Your task to perform on an android device: open app "Facebook" (install if not already installed) Image 0: 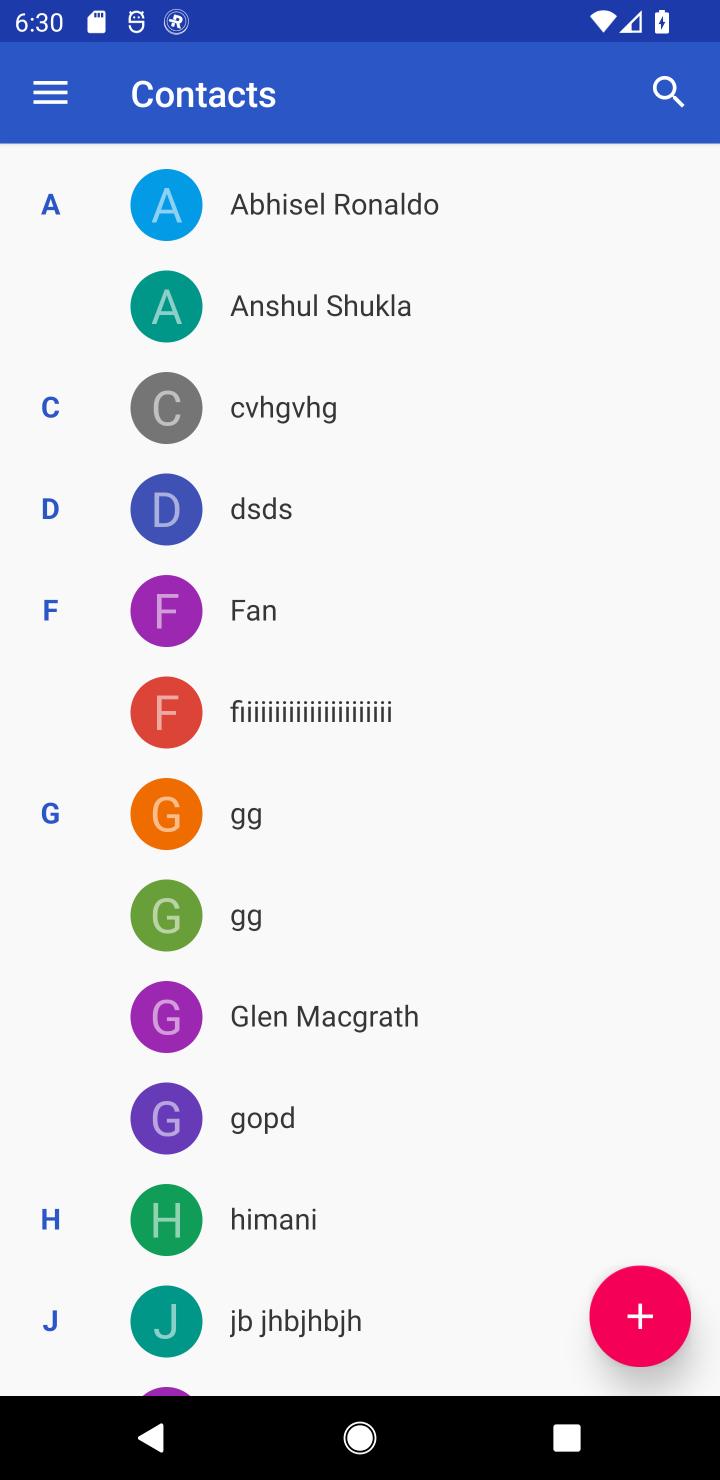
Step 0: press home button
Your task to perform on an android device: open app "Facebook" (install if not already installed) Image 1: 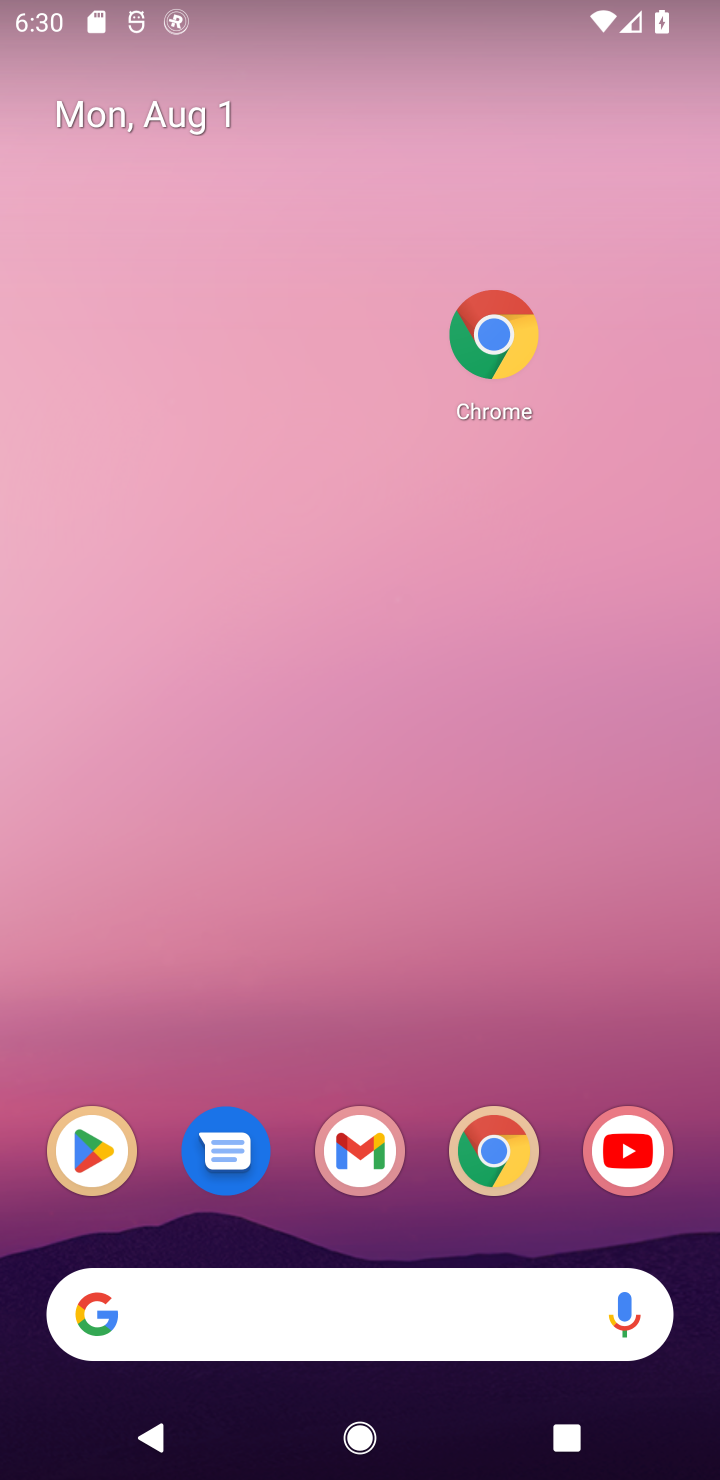
Step 1: click (108, 1155)
Your task to perform on an android device: open app "Facebook" (install if not already installed) Image 2: 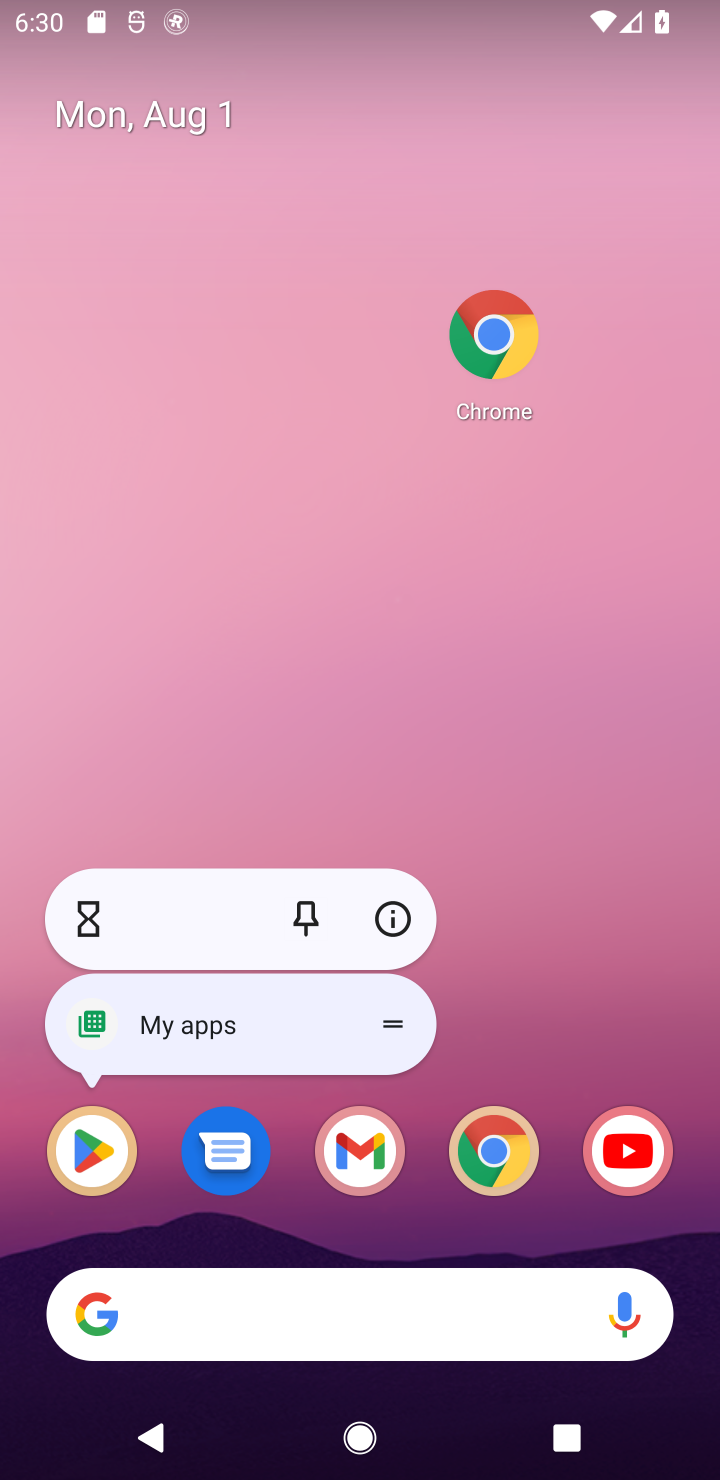
Step 2: click (98, 1159)
Your task to perform on an android device: open app "Facebook" (install if not already installed) Image 3: 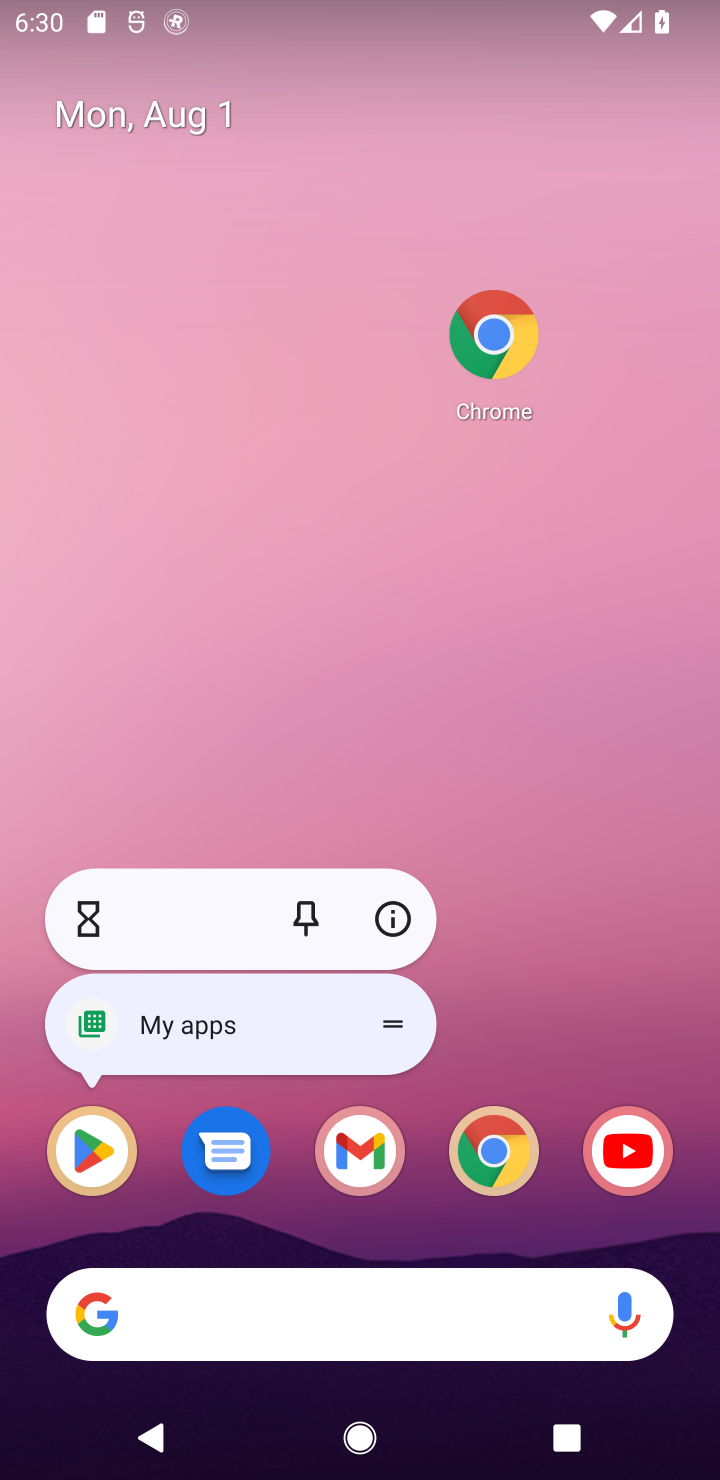
Step 3: click (98, 1159)
Your task to perform on an android device: open app "Facebook" (install if not already installed) Image 4: 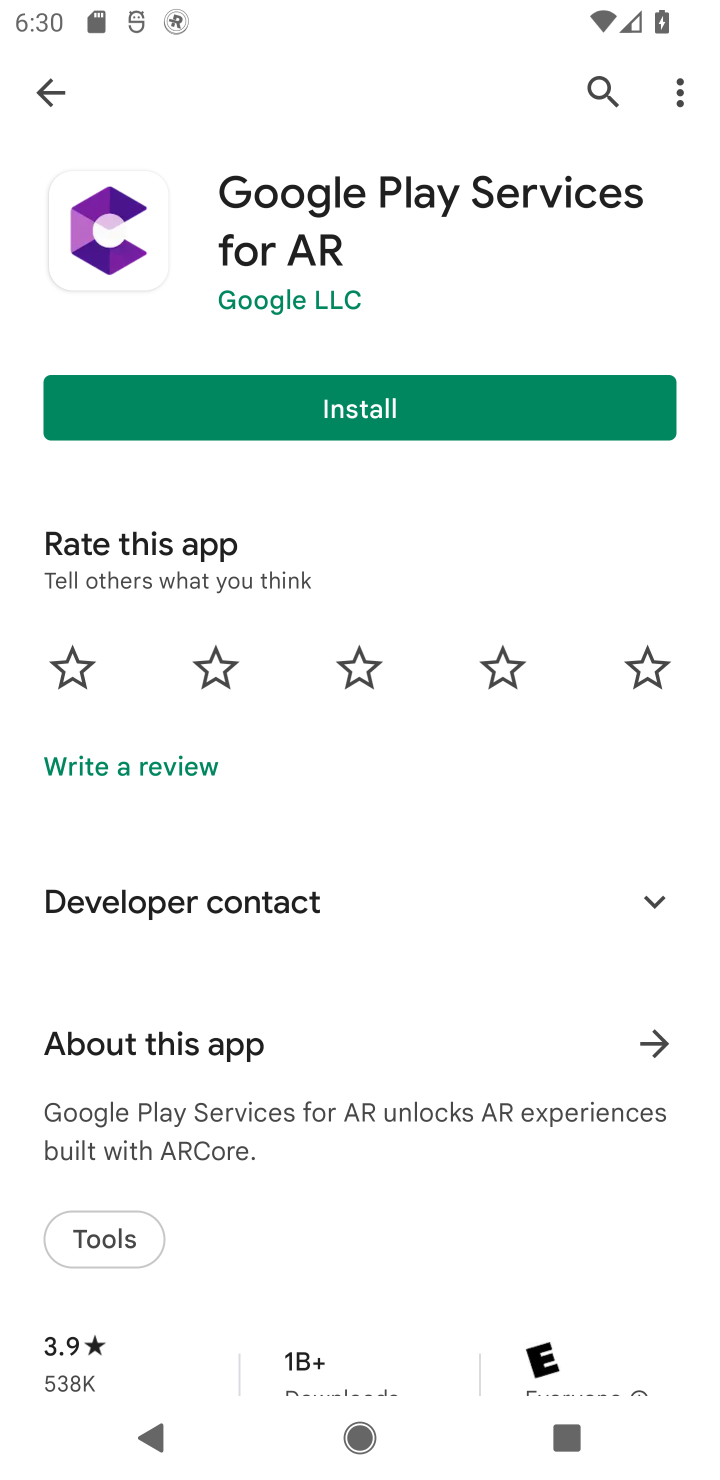
Step 4: click (605, 90)
Your task to perform on an android device: open app "Facebook" (install if not already installed) Image 5: 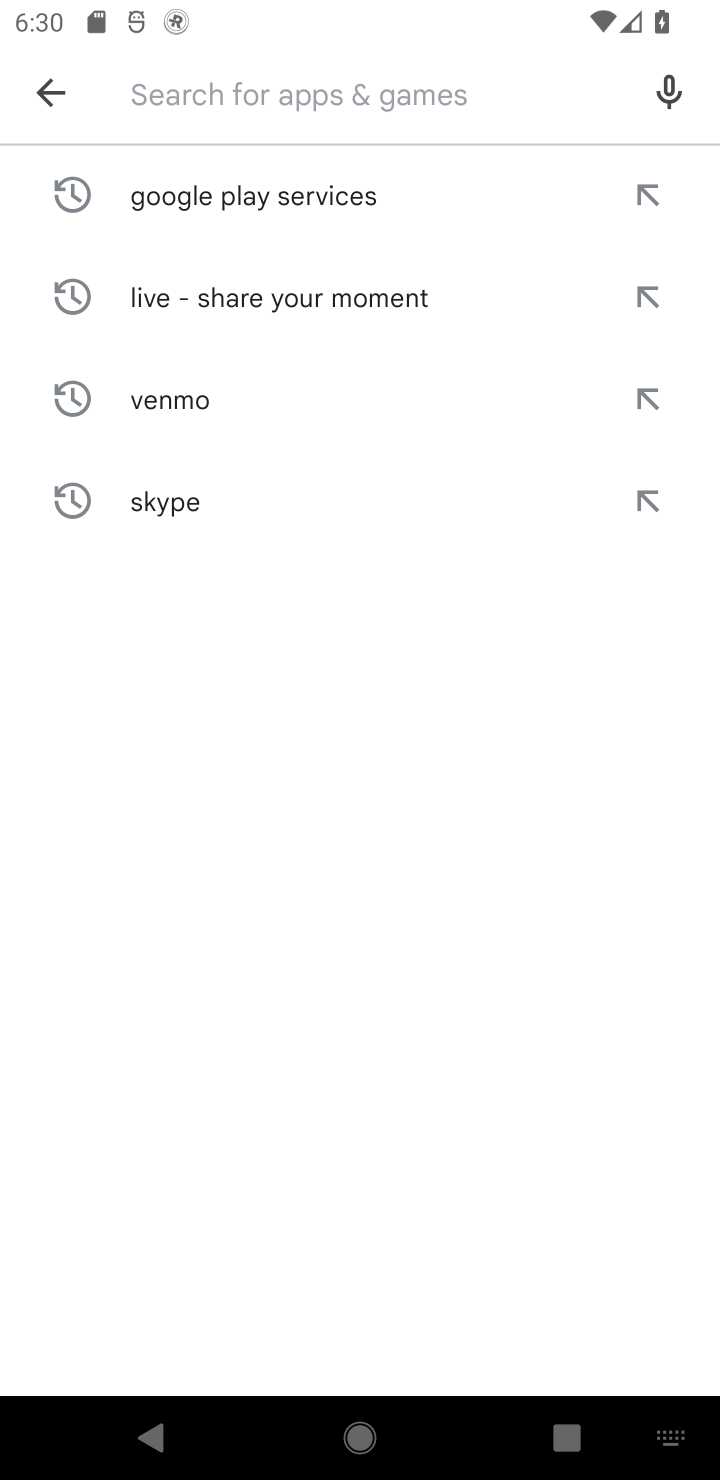
Step 5: type "Facebook"
Your task to perform on an android device: open app "Facebook" (install if not already installed) Image 6: 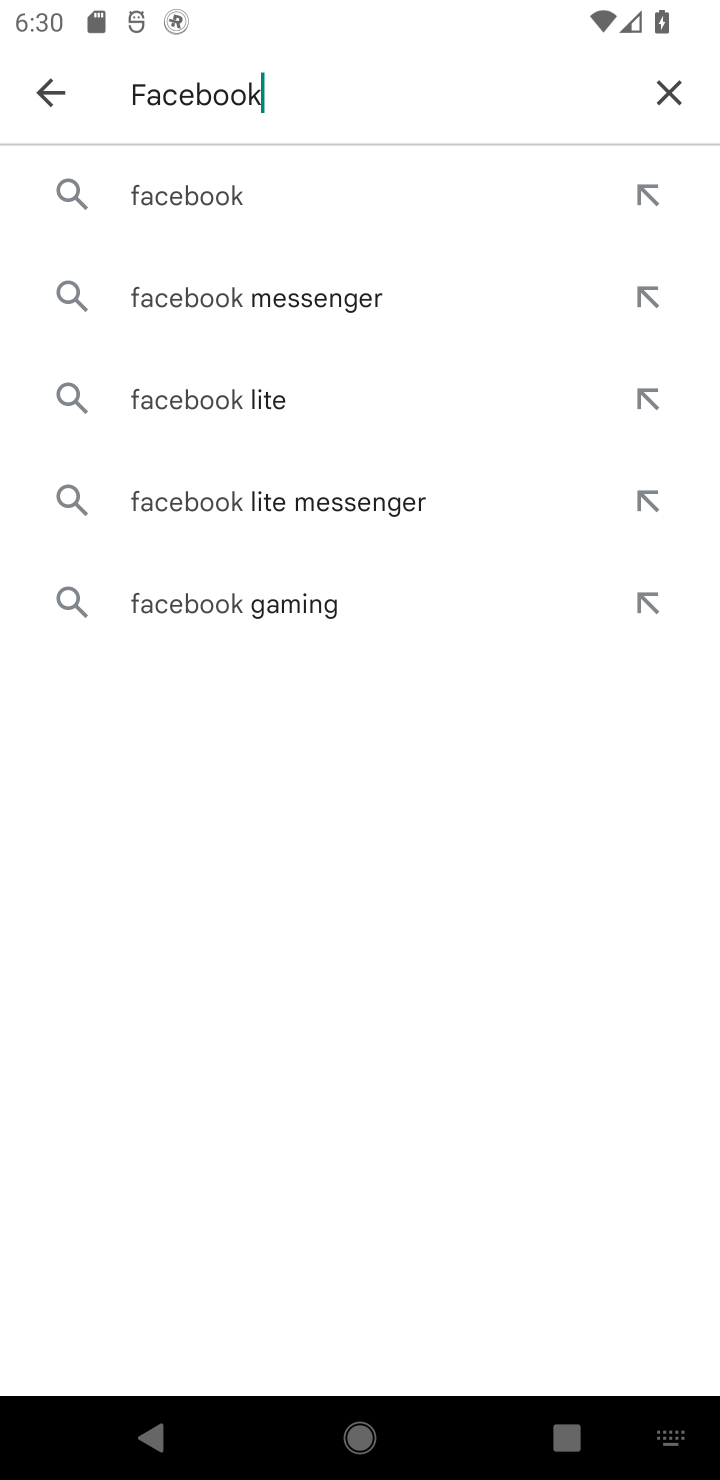
Step 6: click (161, 198)
Your task to perform on an android device: open app "Facebook" (install if not already installed) Image 7: 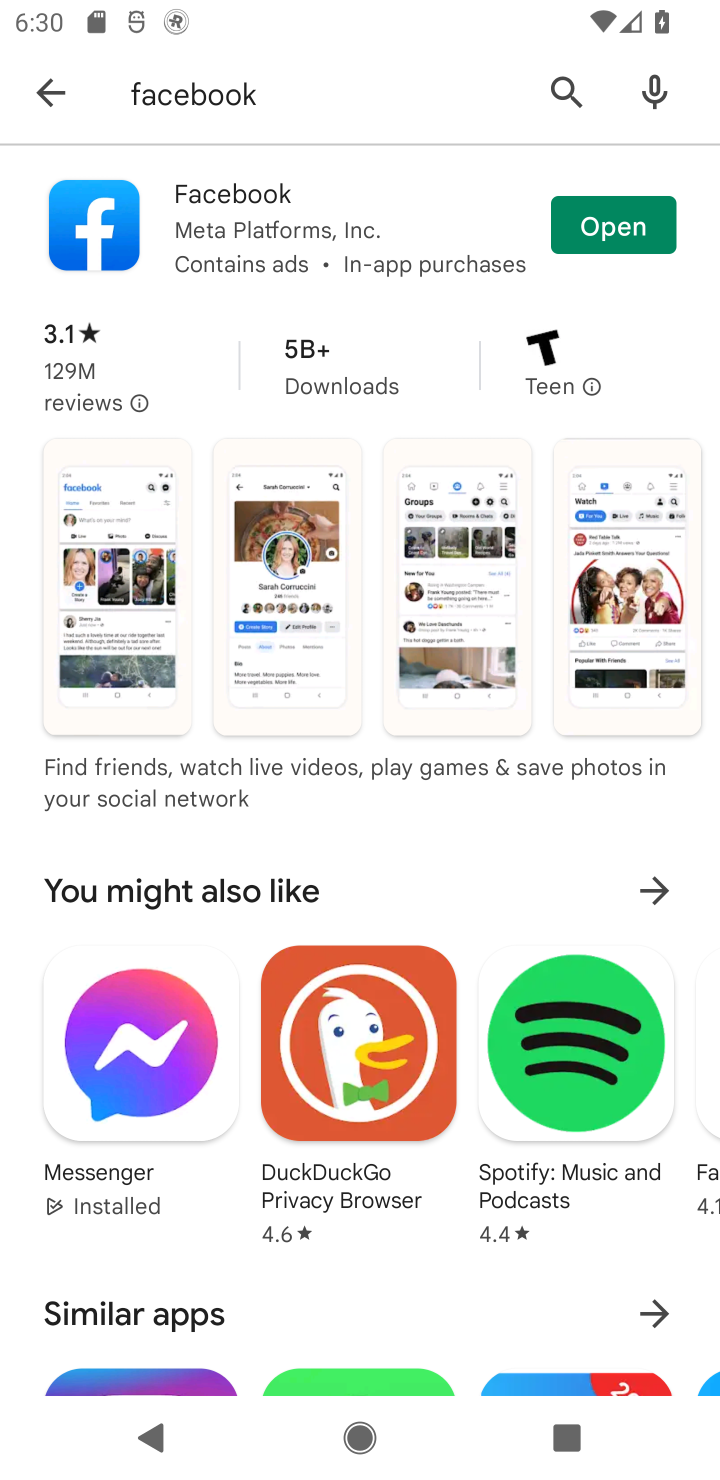
Step 7: click (621, 231)
Your task to perform on an android device: open app "Facebook" (install if not already installed) Image 8: 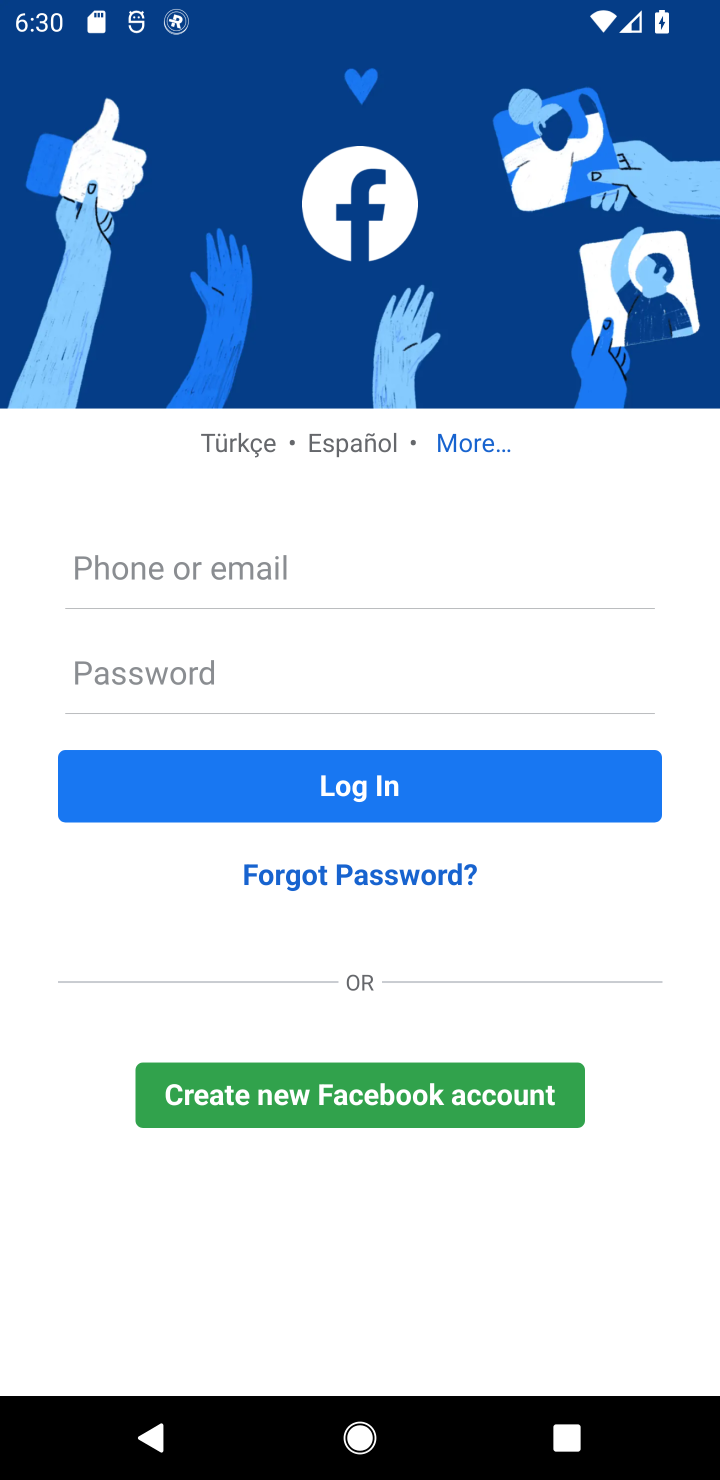
Step 8: task complete